Your task to perform on an android device: see creations saved in the google photos Image 0: 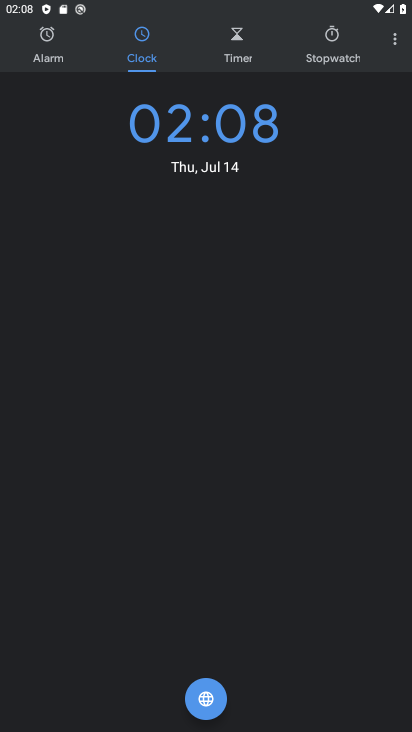
Step 0: press home button
Your task to perform on an android device: see creations saved in the google photos Image 1: 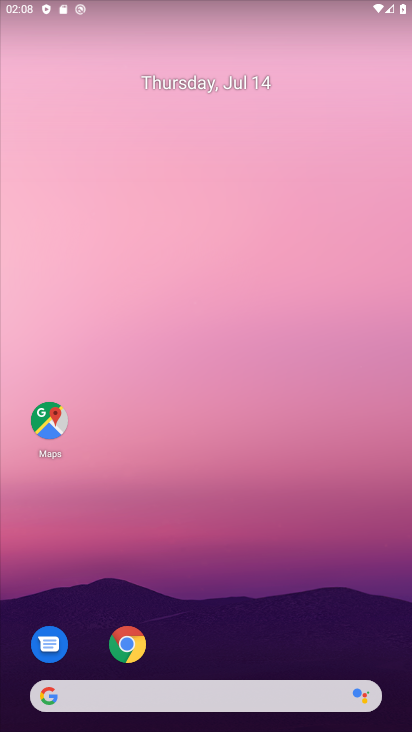
Step 1: drag from (314, 652) to (116, 0)
Your task to perform on an android device: see creations saved in the google photos Image 2: 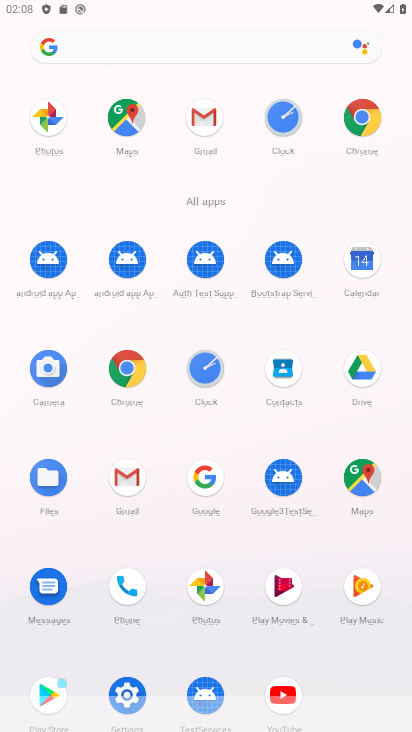
Step 2: click (105, 254)
Your task to perform on an android device: see creations saved in the google photos Image 3: 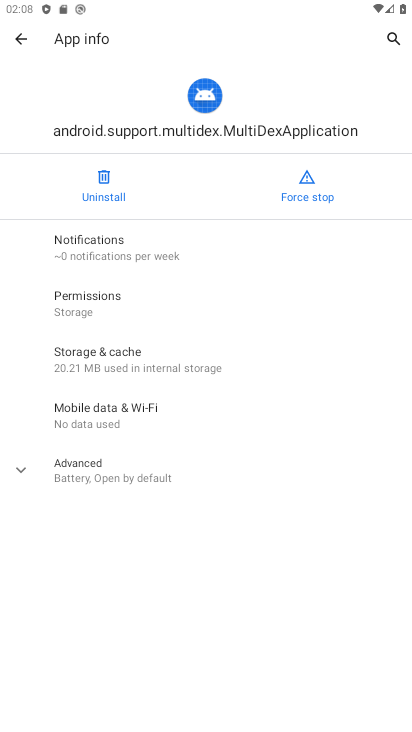
Step 3: press back button
Your task to perform on an android device: see creations saved in the google photos Image 4: 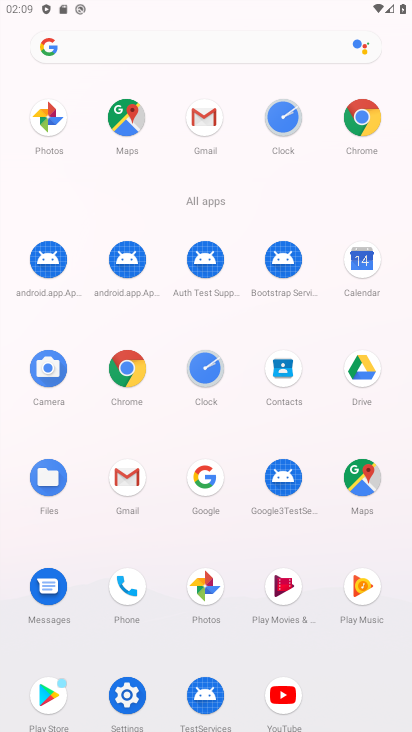
Step 4: click (207, 594)
Your task to perform on an android device: see creations saved in the google photos Image 5: 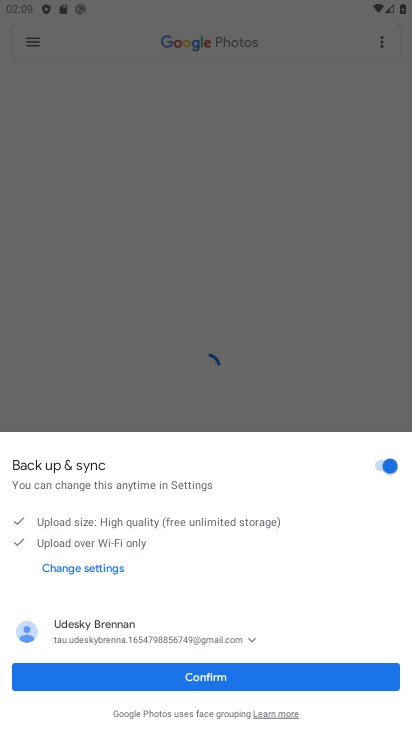
Step 5: click (231, 666)
Your task to perform on an android device: see creations saved in the google photos Image 6: 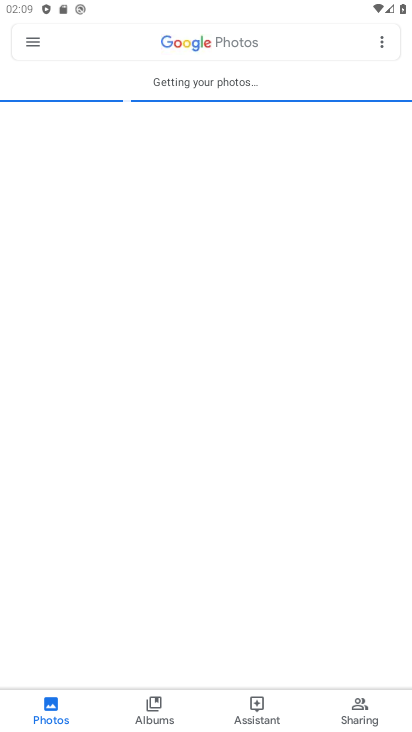
Step 6: click (231, 674)
Your task to perform on an android device: see creations saved in the google photos Image 7: 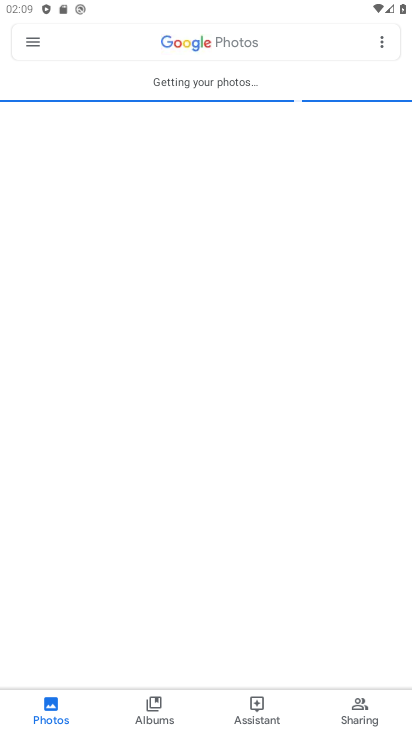
Step 7: click (231, 674)
Your task to perform on an android device: see creations saved in the google photos Image 8: 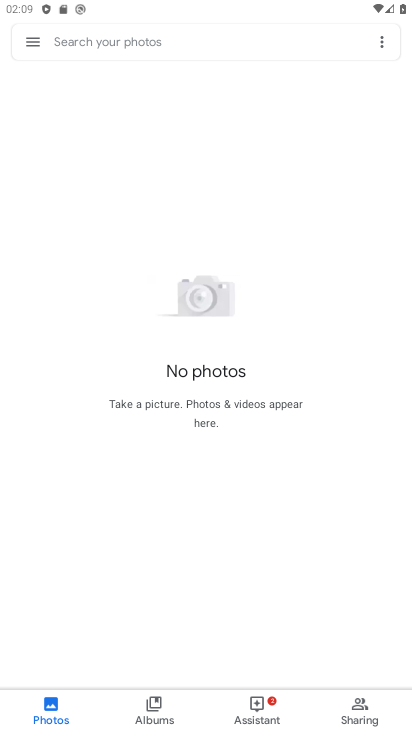
Step 8: click (151, 35)
Your task to perform on an android device: see creations saved in the google photos Image 9: 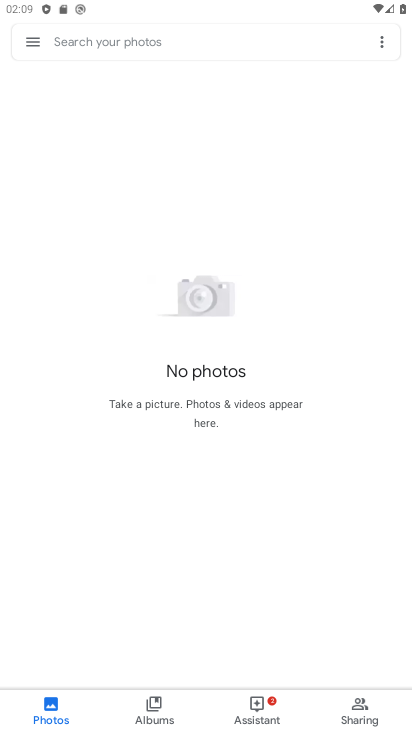
Step 9: click (151, 35)
Your task to perform on an android device: see creations saved in the google photos Image 10: 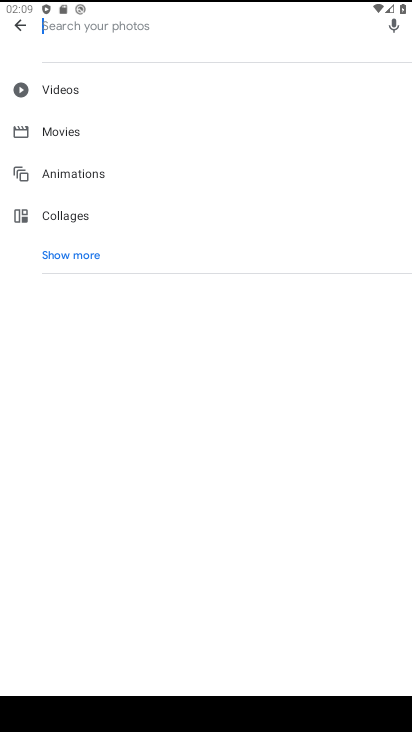
Step 10: click (49, 254)
Your task to perform on an android device: see creations saved in the google photos Image 11: 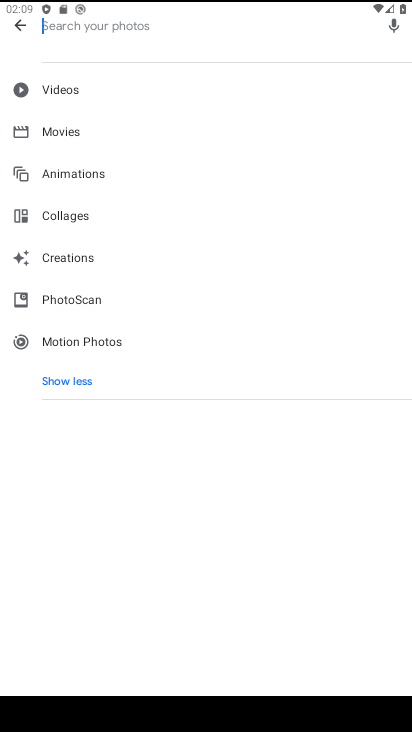
Step 11: click (77, 260)
Your task to perform on an android device: see creations saved in the google photos Image 12: 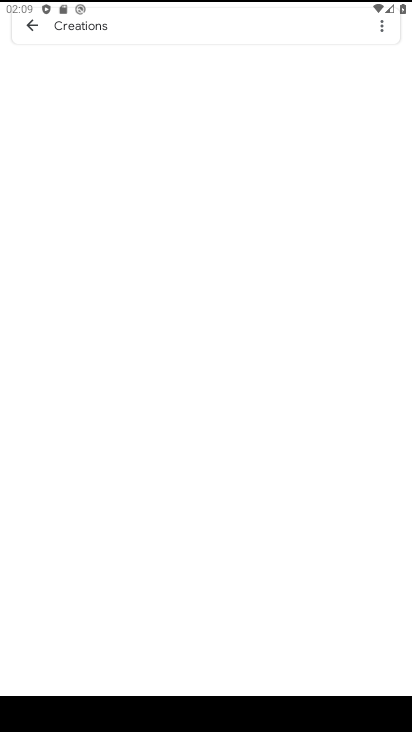
Step 12: click (77, 260)
Your task to perform on an android device: see creations saved in the google photos Image 13: 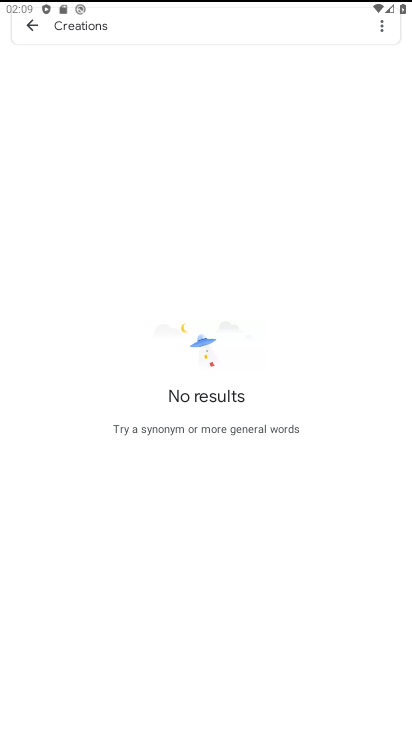
Step 13: task complete